Your task to perform on an android device: When is my next appointment? Image 0: 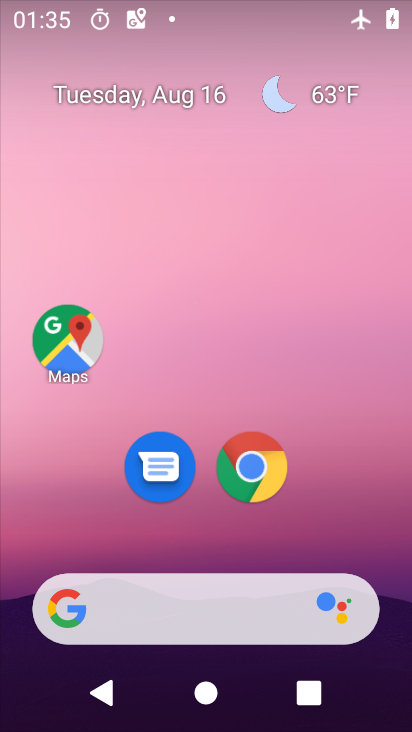
Step 0: press home button
Your task to perform on an android device: When is my next appointment? Image 1: 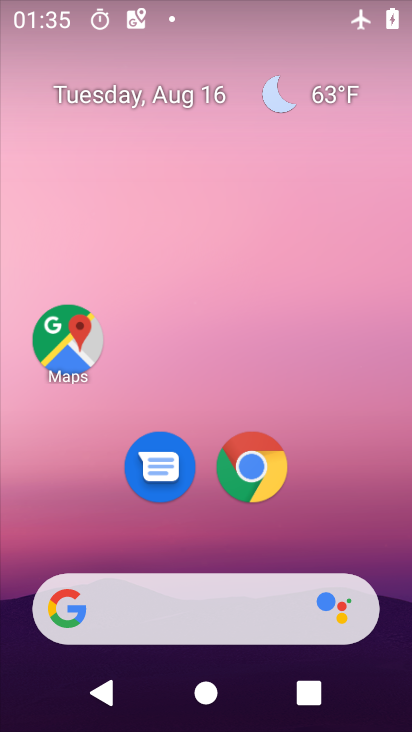
Step 1: drag from (361, 546) to (374, 93)
Your task to perform on an android device: When is my next appointment? Image 2: 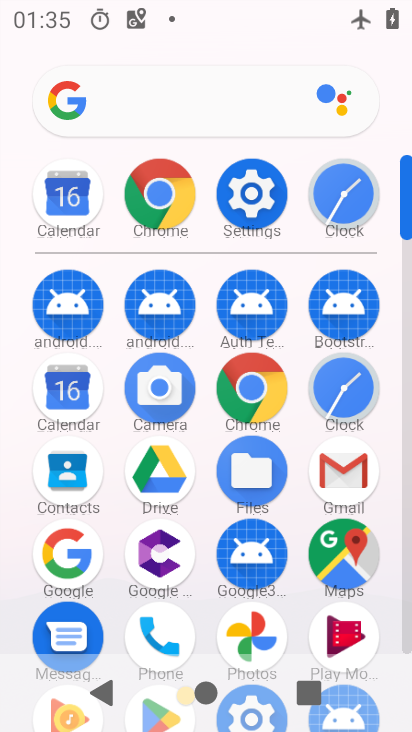
Step 2: click (51, 405)
Your task to perform on an android device: When is my next appointment? Image 3: 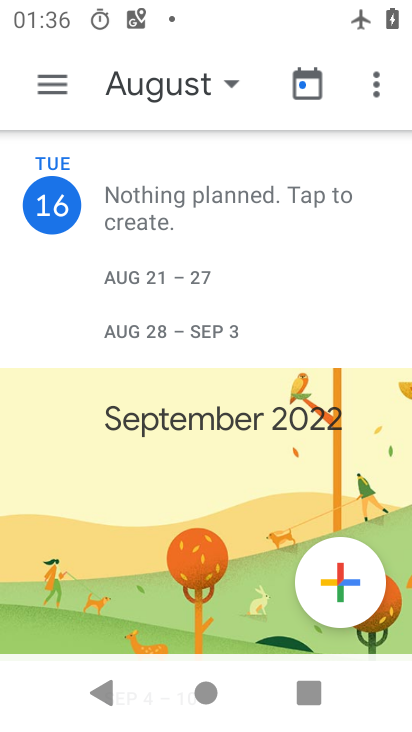
Step 3: task complete